Your task to perform on an android device: turn smart compose on in the gmail app Image 0: 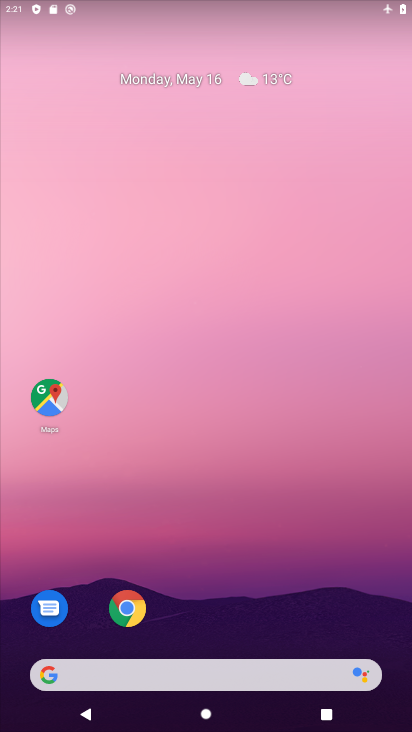
Step 0: drag from (187, 570) to (144, 40)
Your task to perform on an android device: turn smart compose on in the gmail app Image 1: 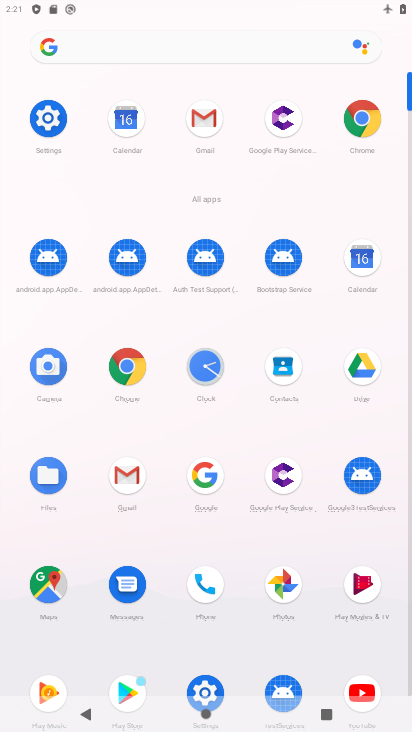
Step 1: click (204, 133)
Your task to perform on an android device: turn smart compose on in the gmail app Image 2: 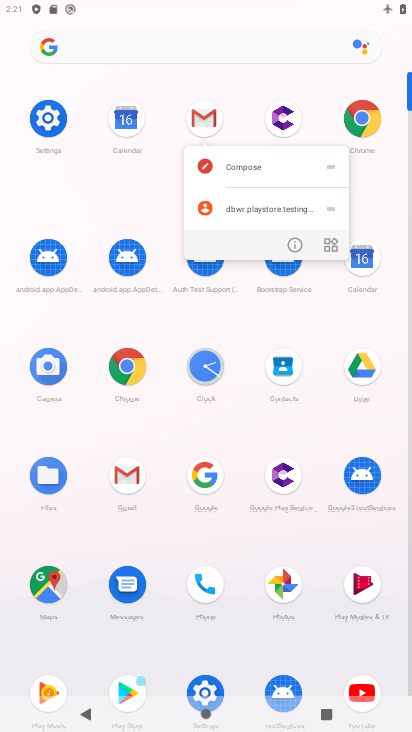
Step 2: click (201, 116)
Your task to perform on an android device: turn smart compose on in the gmail app Image 3: 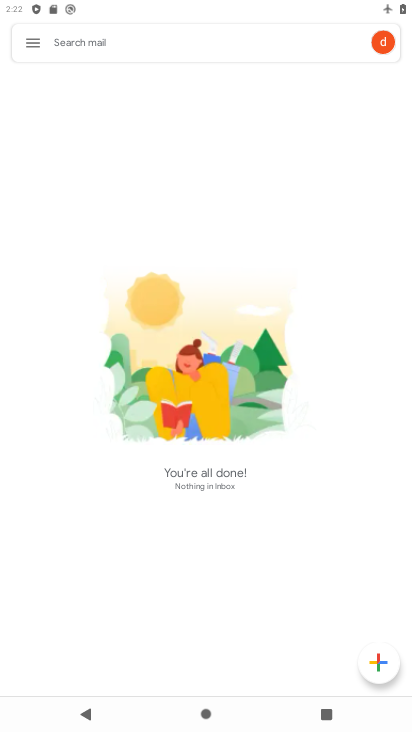
Step 3: click (41, 44)
Your task to perform on an android device: turn smart compose on in the gmail app Image 4: 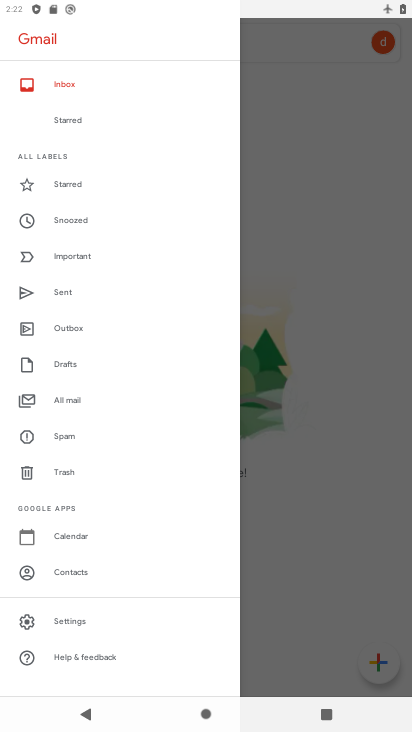
Step 4: click (95, 630)
Your task to perform on an android device: turn smart compose on in the gmail app Image 5: 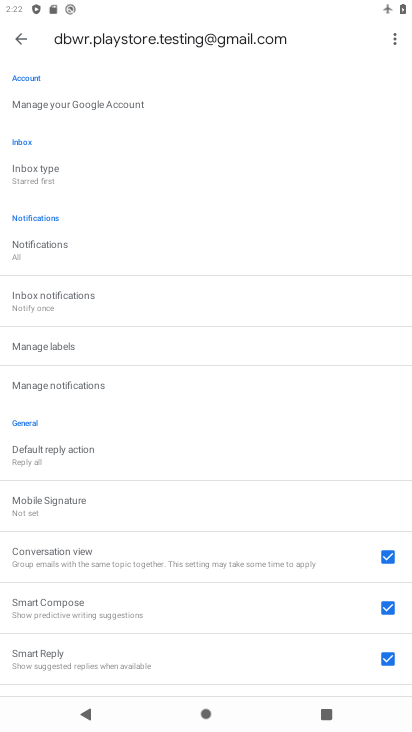
Step 5: task complete